Your task to perform on an android device: Go to CNN.com Image 0: 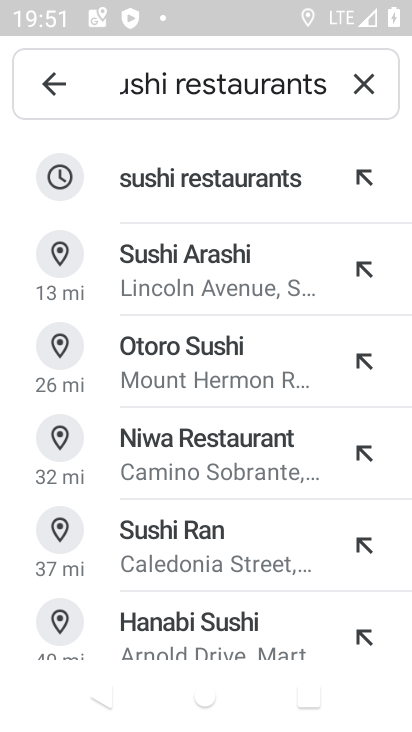
Step 0: press home button
Your task to perform on an android device: Go to CNN.com Image 1: 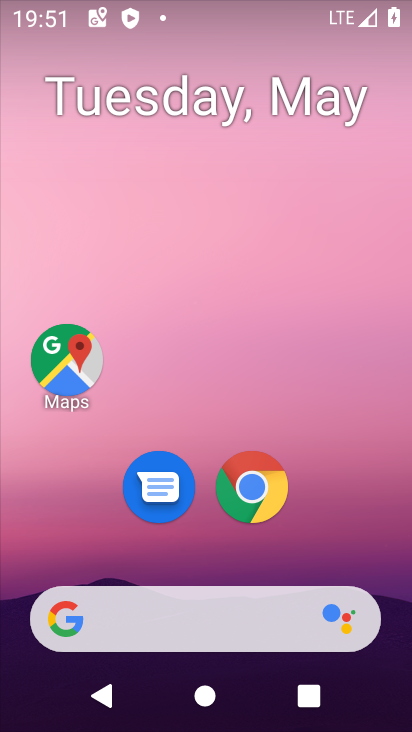
Step 1: click (179, 611)
Your task to perform on an android device: Go to CNN.com Image 2: 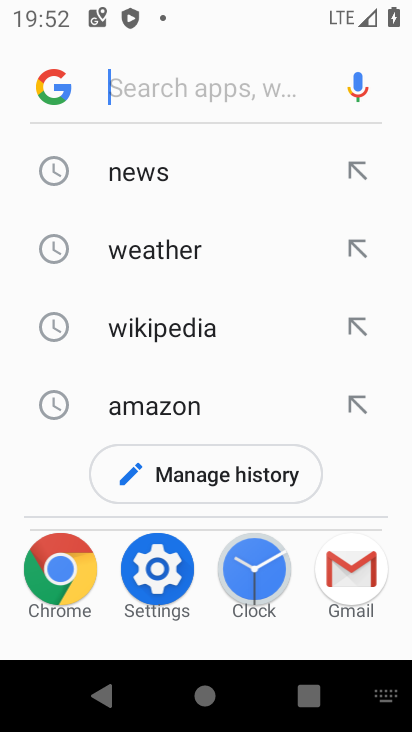
Step 2: type "cnn.com"
Your task to perform on an android device: Go to CNN.com Image 3: 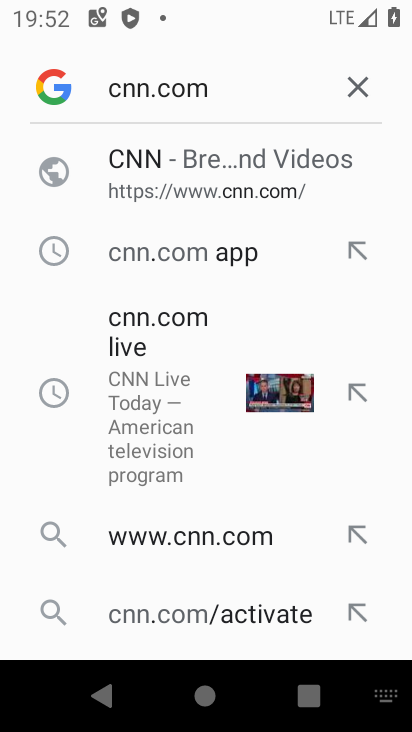
Step 3: click (137, 164)
Your task to perform on an android device: Go to CNN.com Image 4: 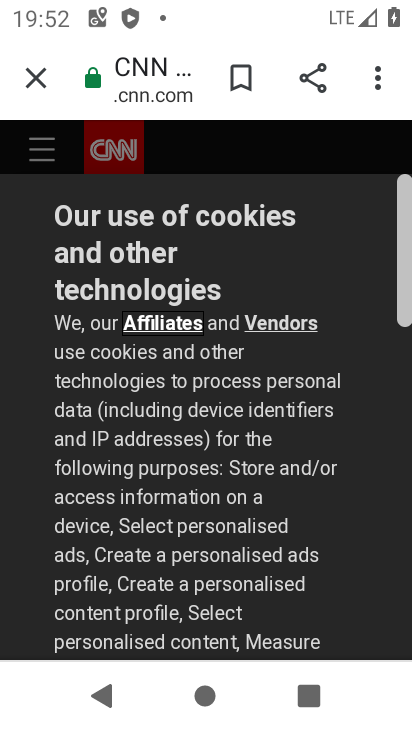
Step 4: task complete